Your task to perform on an android device: change alarm snooze length Image 0: 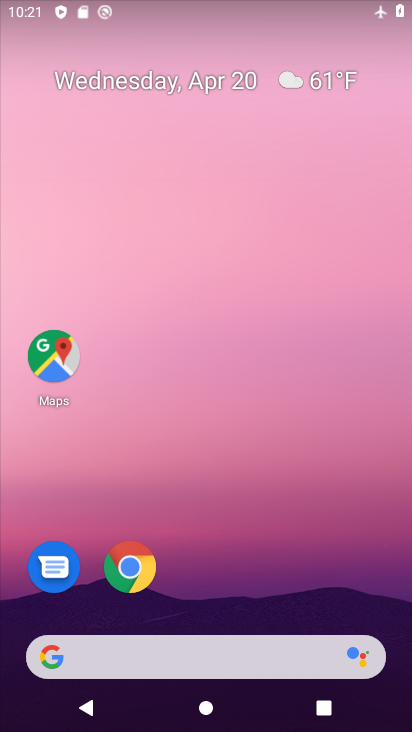
Step 0: drag from (221, 549) to (320, 66)
Your task to perform on an android device: change alarm snooze length Image 1: 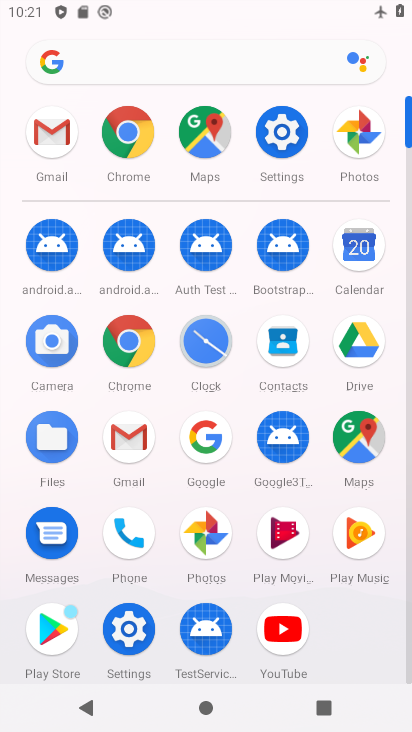
Step 1: click (205, 342)
Your task to perform on an android device: change alarm snooze length Image 2: 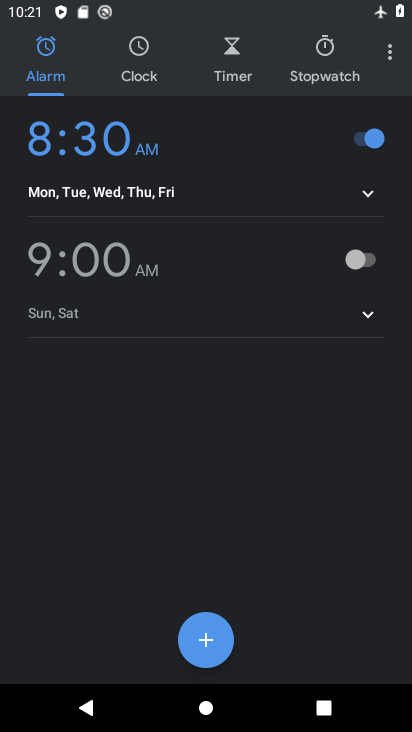
Step 2: click (387, 50)
Your task to perform on an android device: change alarm snooze length Image 3: 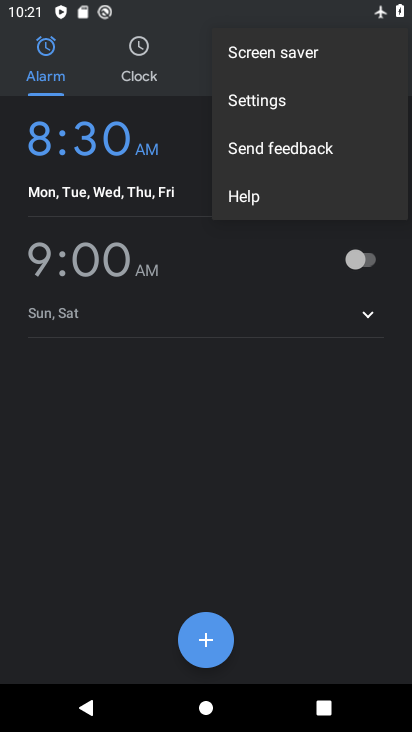
Step 3: click (247, 102)
Your task to perform on an android device: change alarm snooze length Image 4: 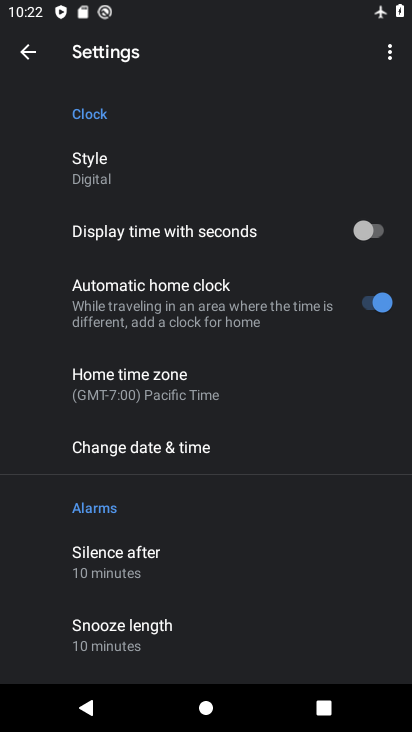
Step 4: click (140, 641)
Your task to perform on an android device: change alarm snooze length Image 5: 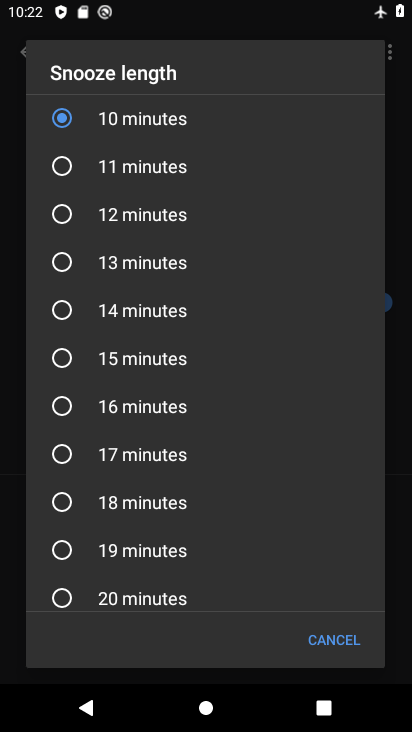
Step 5: click (66, 312)
Your task to perform on an android device: change alarm snooze length Image 6: 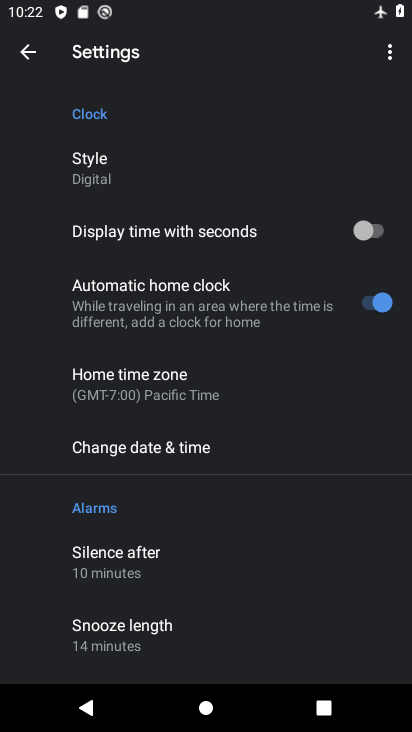
Step 6: task complete